Your task to perform on an android device: Go to display settings Image 0: 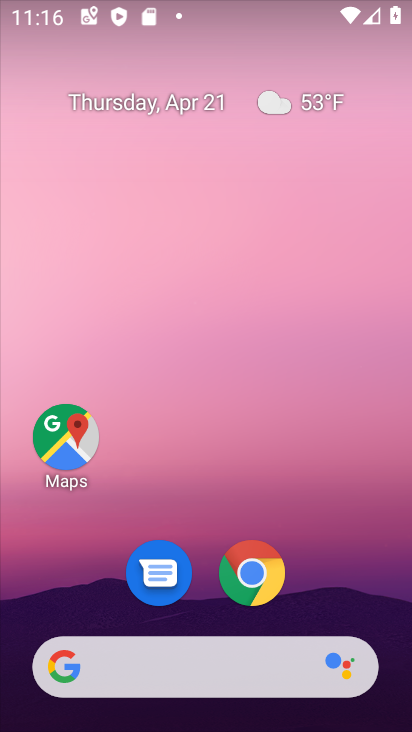
Step 0: drag from (351, 549) to (320, 108)
Your task to perform on an android device: Go to display settings Image 1: 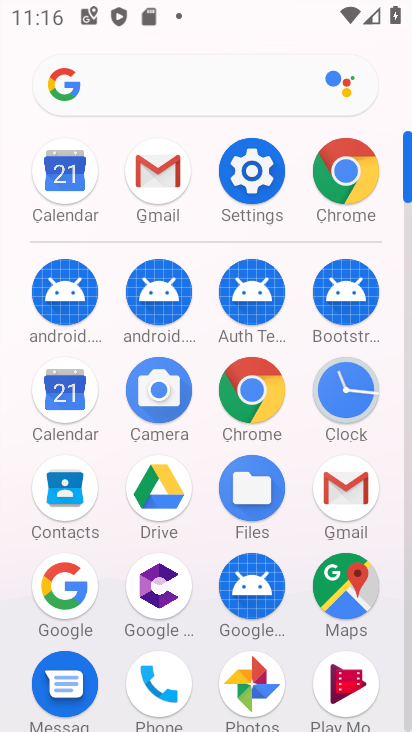
Step 1: click (250, 174)
Your task to perform on an android device: Go to display settings Image 2: 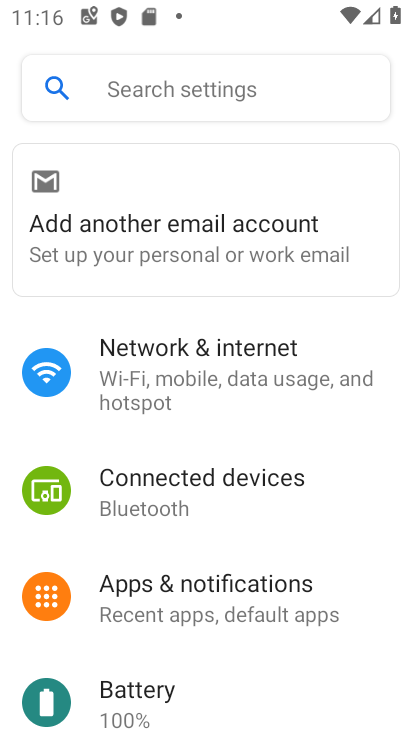
Step 2: drag from (351, 539) to (356, 189)
Your task to perform on an android device: Go to display settings Image 3: 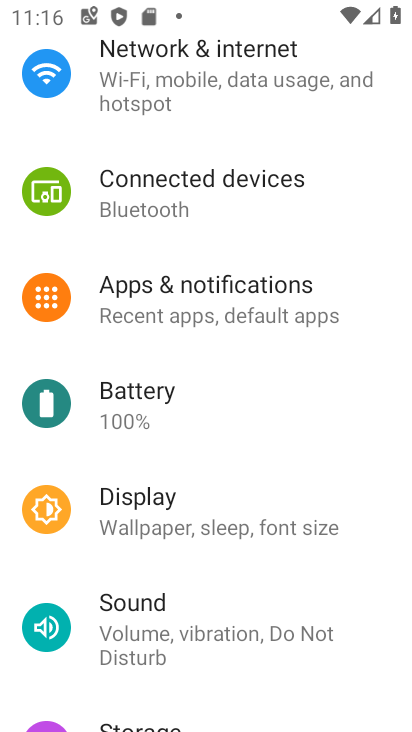
Step 3: drag from (290, 659) to (318, 366)
Your task to perform on an android device: Go to display settings Image 4: 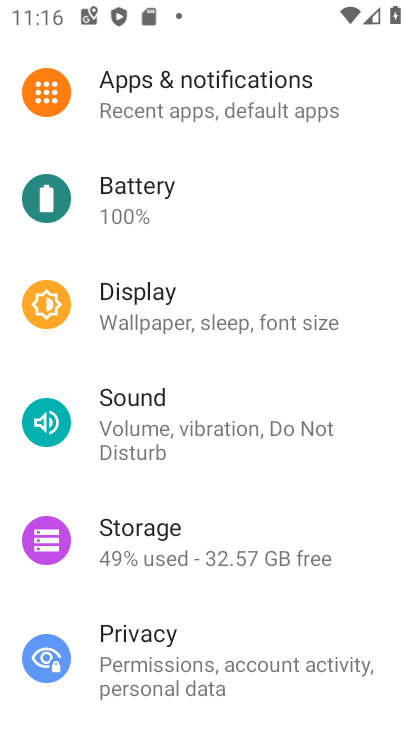
Step 4: drag from (309, 672) to (320, 515)
Your task to perform on an android device: Go to display settings Image 5: 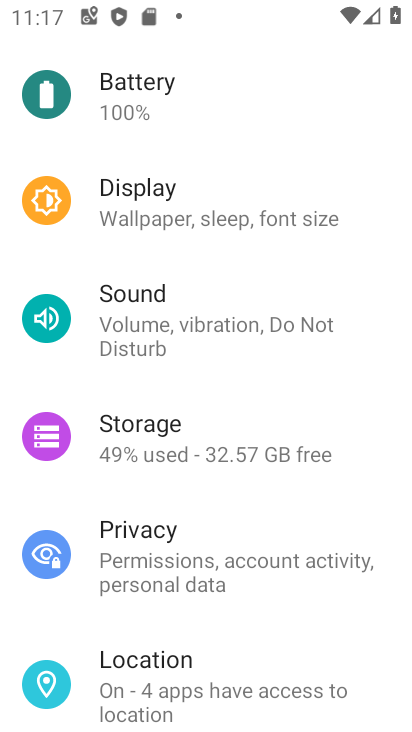
Step 5: click (190, 221)
Your task to perform on an android device: Go to display settings Image 6: 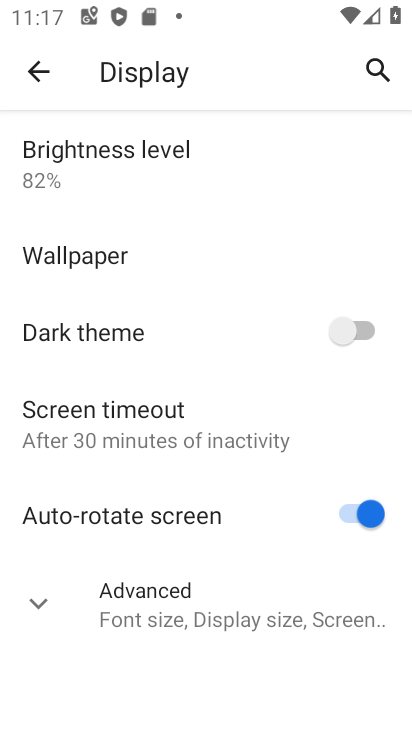
Step 6: task complete